Your task to perform on an android device: Clear all items from cart on newegg. Add energizer triple a to the cart on newegg Image 0: 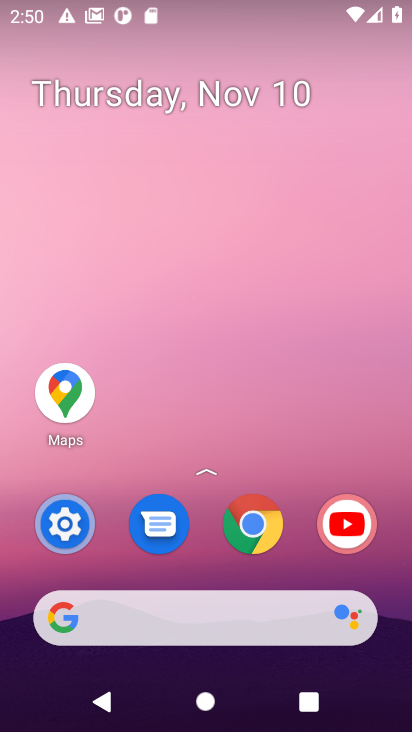
Step 0: click (242, 521)
Your task to perform on an android device: Clear all items from cart on newegg. Add energizer triple a to the cart on newegg Image 1: 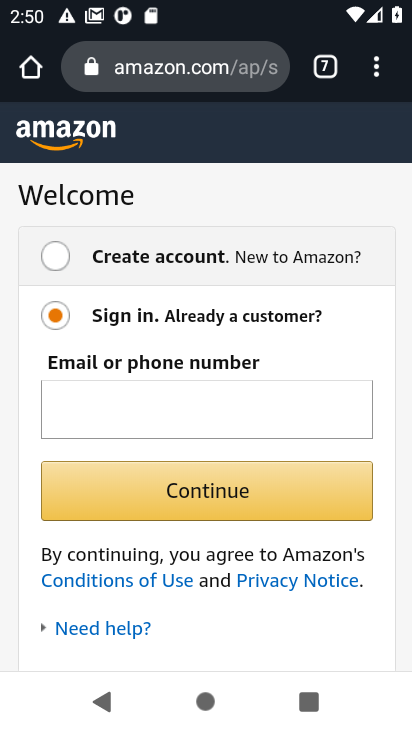
Step 1: click (319, 67)
Your task to perform on an android device: Clear all items from cart on newegg. Add energizer triple a to the cart on newegg Image 2: 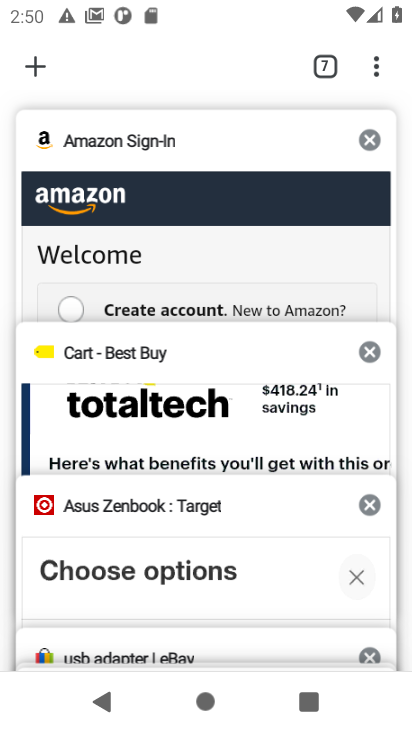
Step 2: drag from (185, 604) to (200, 367)
Your task to perform on an android device: Clear all items from cart on newegg. Add energizer triple a to the cart on newegg Image 3: 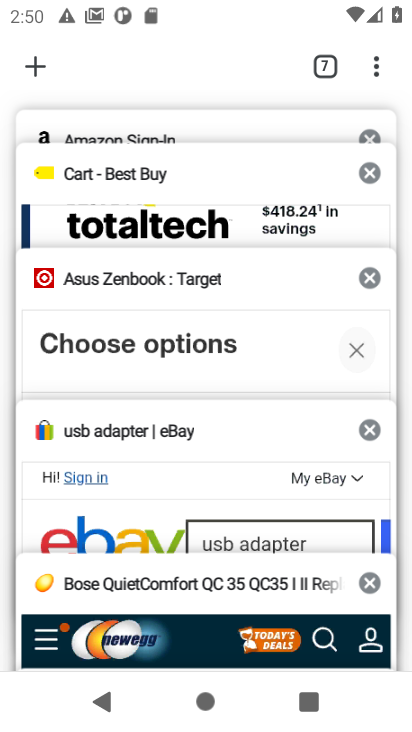
Step 3: click (163, 602)
Your task to perform on an android device: Clear all items from cart on newegg. Add energizer triple a to the cart on newegg Image 4: 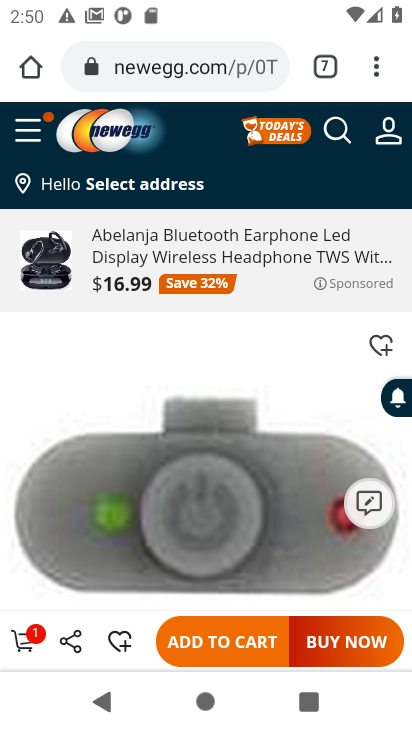
Step 4: click (336, 138)
Your task to perform on an android device: Clear all items from cart on newegg. Add energizer triple a to the cart on newegg Image 5: 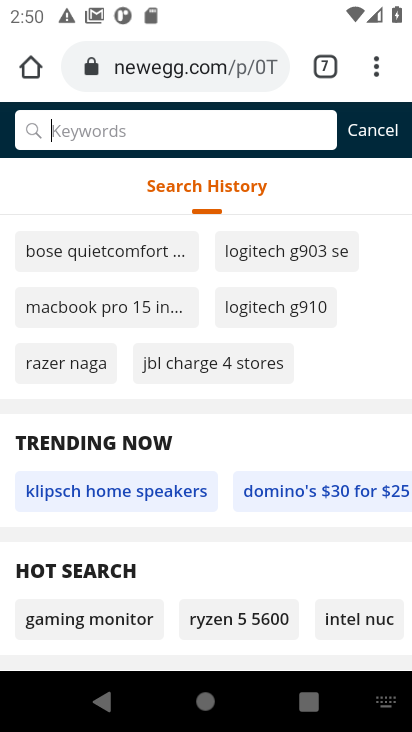
Step 5: type "energizer triple a"
Your task to perform on an android device: Clear all items from cart on newegg. Add energizer triple a to the cart on newegg Image 6: 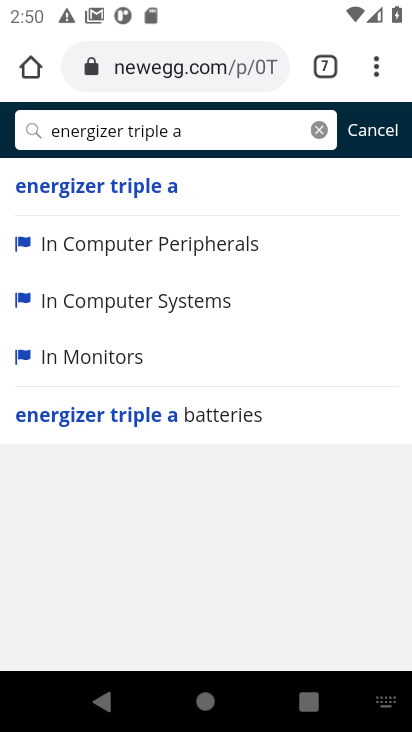
Step 6: click (138, 188)
Your task to perform on an android device: Clear all items from cart on newegg. Add energizer triple a to the cart on newegg Image 7: 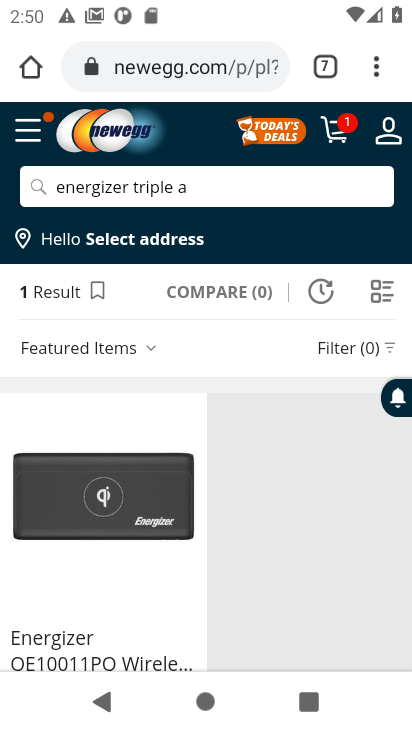
Step 7: drag from (281, 636) to (278, 419)
Your task to perform on an android device: Clear all items from cart on newegg. Add energizer triple a to the cart on newegg Image 8: 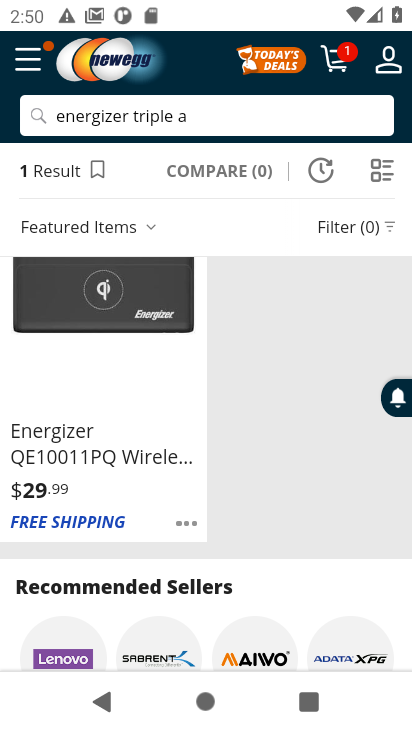
Step 8: click (92, 448)
Your task to perform on an android device: Clear all items from cart on newegg. Add energizer triple a to the cart on newegg Image 9: 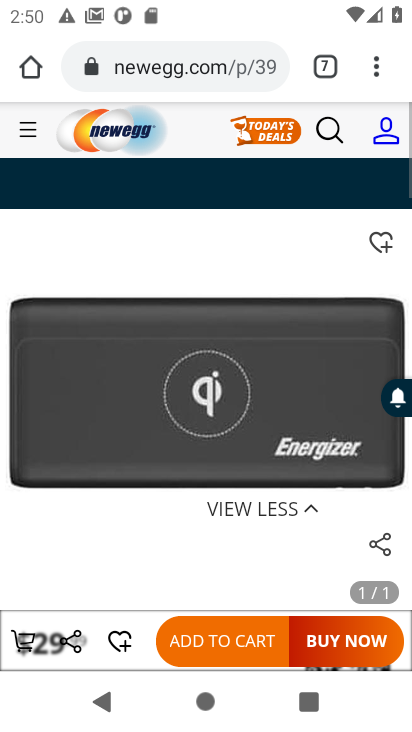
Step 9: click (237, 639)
Your task to perform on an android device: Clear all items from cart on newegg. Add energizer triple a to the cart on newegg Image 10: 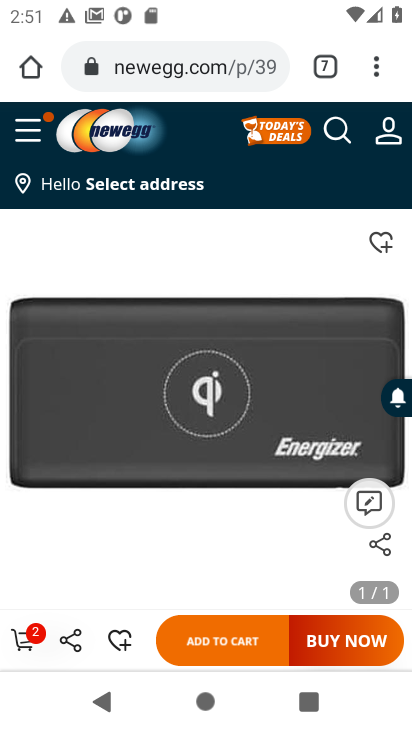
Step 10: click (226, 651)
Your task to perform on an android device: Clear all items from cart on newegg. Add energizer triple a to the cart on newegg Image 11: 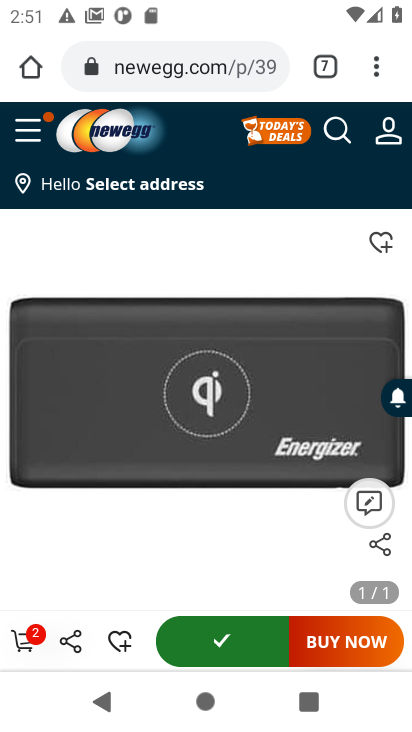
Step 11: task complete